Your task to perform on an android device: Open privacy settings Image 0: 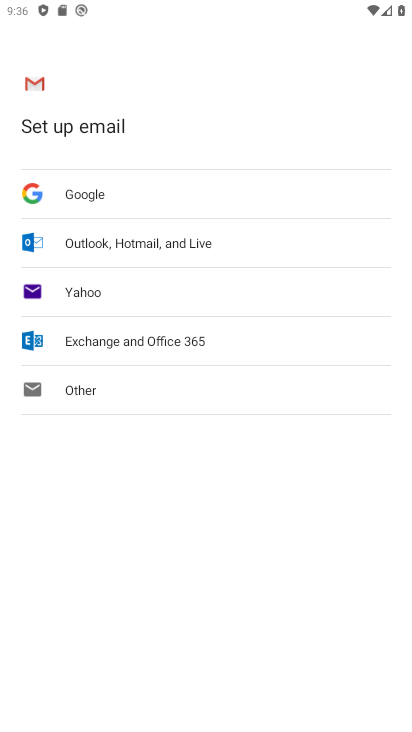
Step 0: press home button
Your task to perform on an android device: Open privacy settings Image 1: 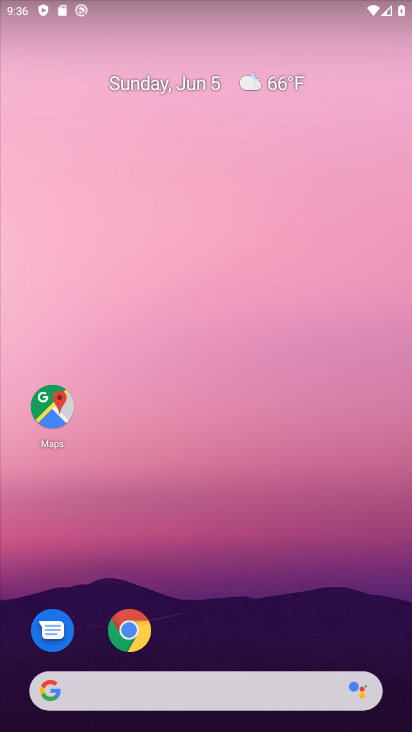
Step 1: drag from (239, 716) to (231, 48)
Your task to perform on an android device: Open privacy settings Image 2: 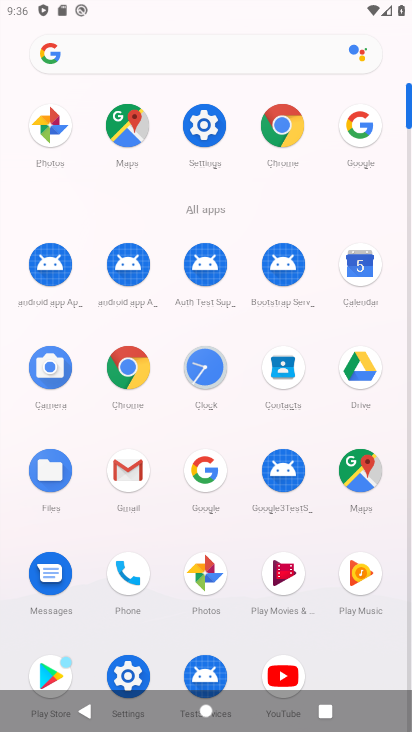
Step 2: click (201, 133)
Your task to perform on an android device: Open privacy settings Image 3: 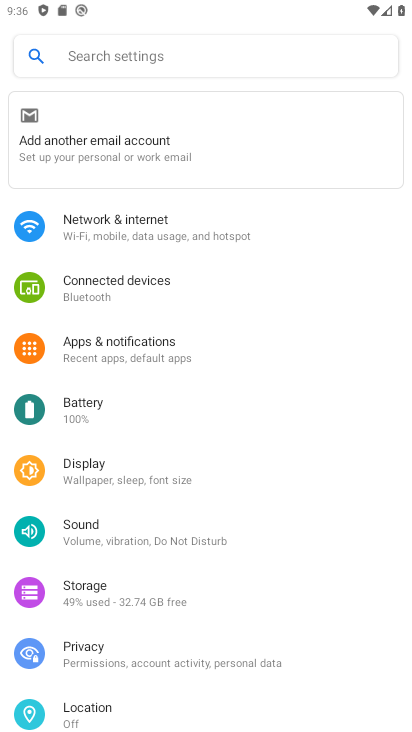
Step 3: click (99, 660)
Your task to perform on an android device: Open privacy settings Image 4: 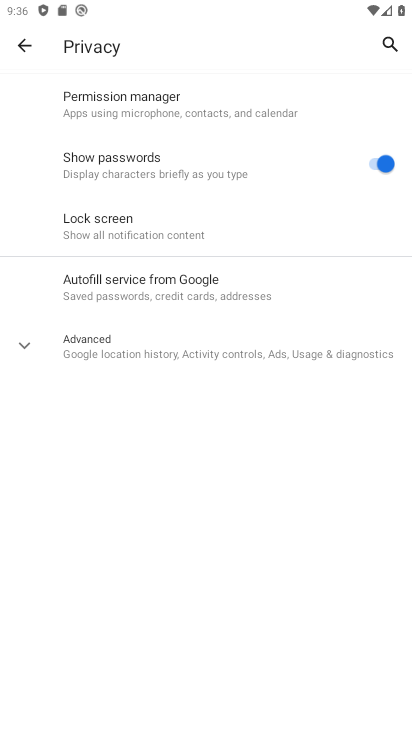
Step 4: task complete